Your task to perform on an android device: check the backup settings in the google photos Image 0: 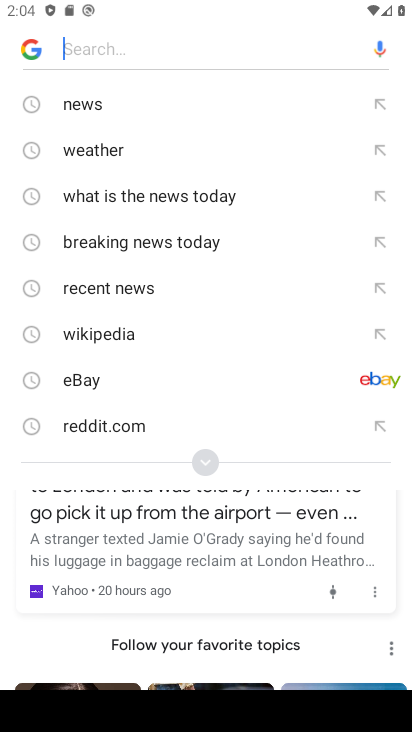
Step 0: press home button
Your task to perform on an android device: check the backup settings in the google photos Image 1: 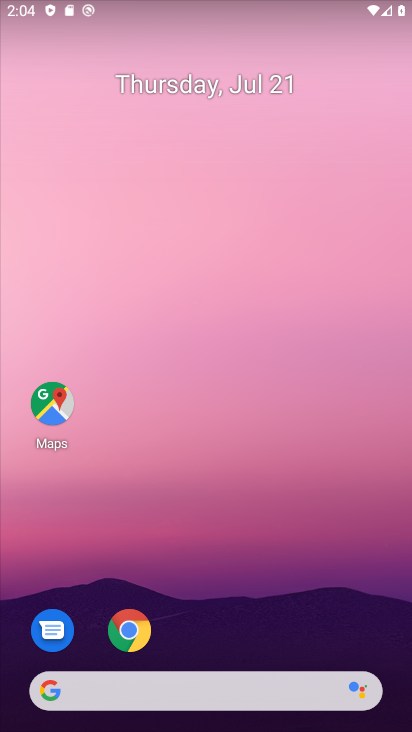
Step 1: drag from (254, 581) to (236, 261)
Your task to perform on an android device: check the backup settings in the google photos Image 2: 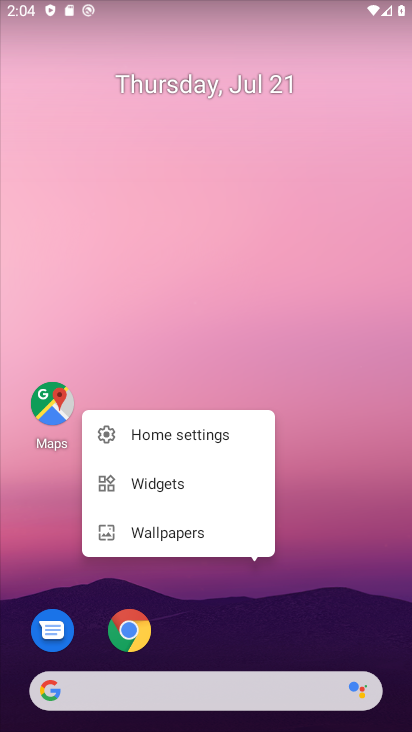
Step 2: click (359, 552)
Your task to perform on an android device: check the backup settings in the google photos Image 3: 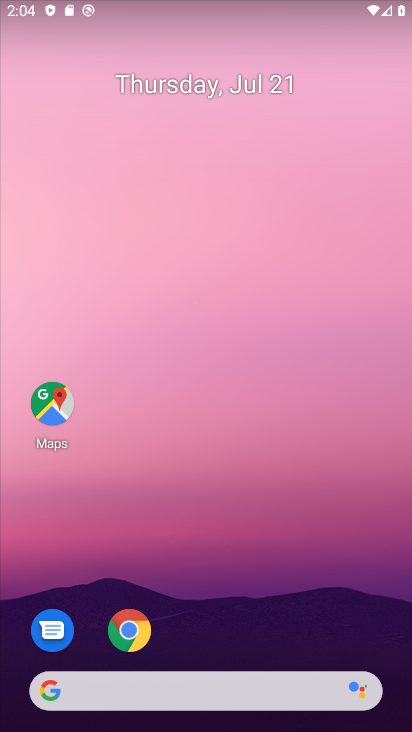
Step 3: drag from (359, 552) to (323, 42)
Your task to perform on an android device: check the backup settings in the google photos Image 4: 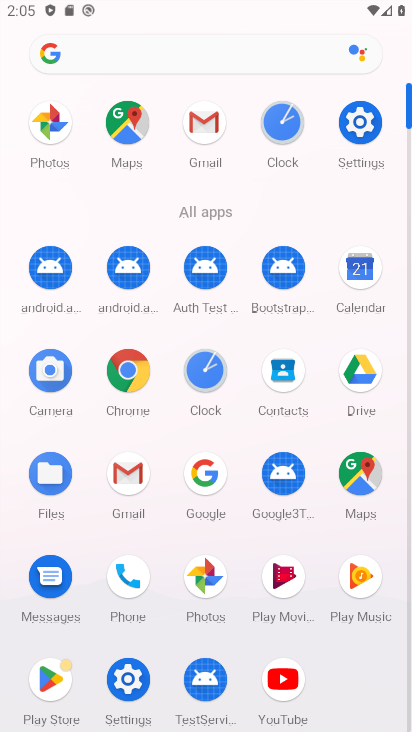
Step 4: click (201, 566)
Your task to perform on an android device: check the backup settings in the google photos Image 5: 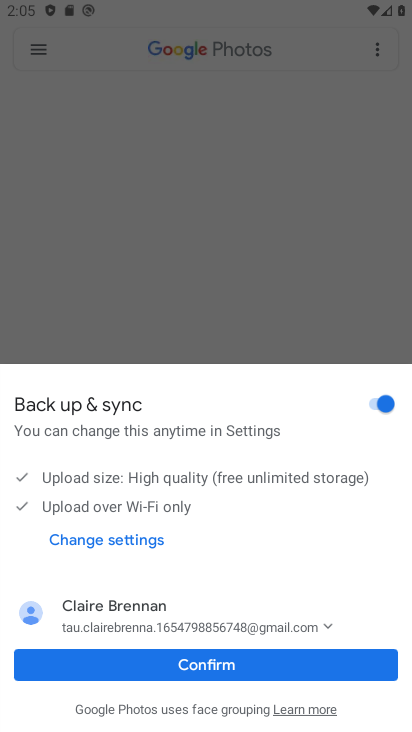
Step 5: click (222, 659)
Your task to perform on an android device: check the backup settings in the google photos Image 6: 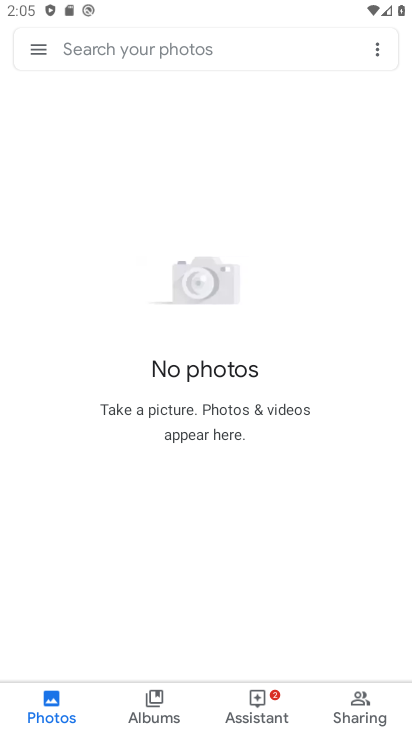
Step 6: click (38, 49)
Your task to perform on an android device: check the backup settings in the google photos Image 7: 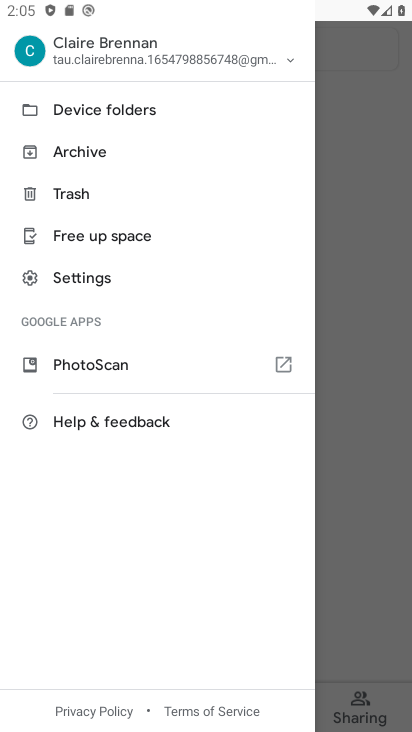
Step 7: click (97, 278)
Your task to perform on an android device: check the backup settings in the google photos Image 8: 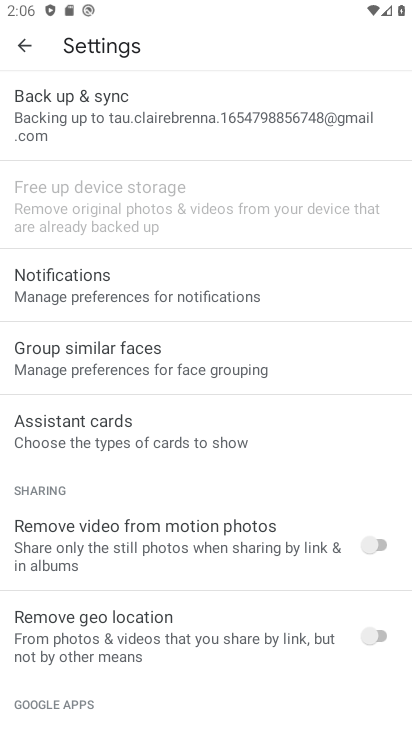
Step 8: click (92, 104)
Your task to perform on an android device: check the backup settings in the google photos Image 9: 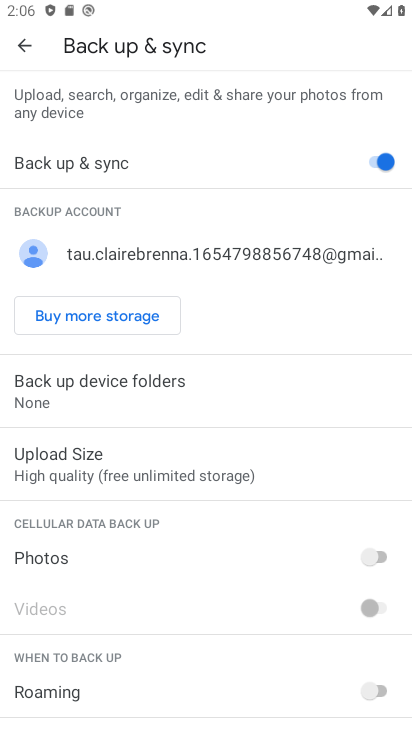
Step 9: task complete